Your task to perform on an android device: When is my next appointment? Image 0: 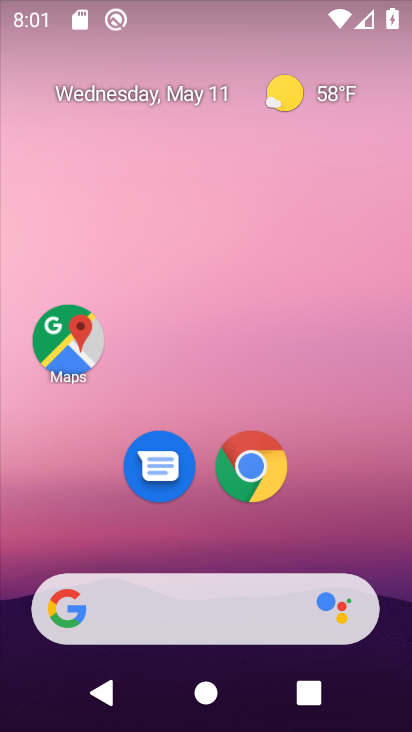
Step 0: drag from (234, 557) to (219, 22)
Your task to perform on an android device: When is my next appointment? Image 1: 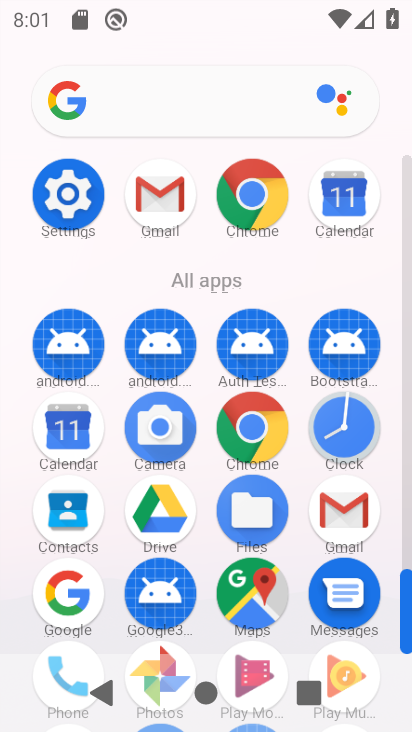
Step 1: click (49, 426)
Your task to perform on an android device: When is my next appointment? Image 2: 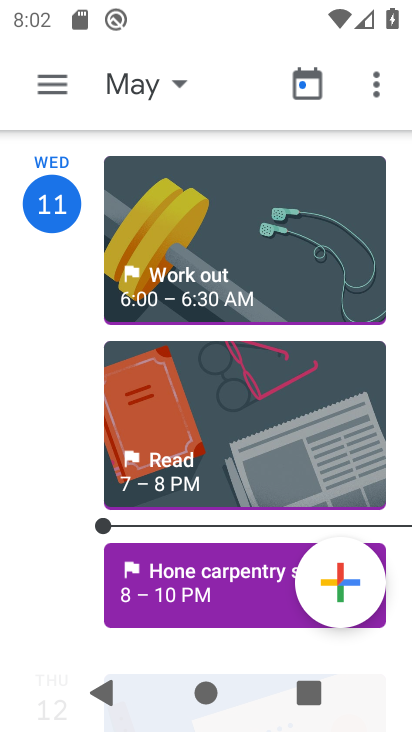
Step 2: click (151, 74)
Your task to perform on an android device: When is my next appointment? Image 3: 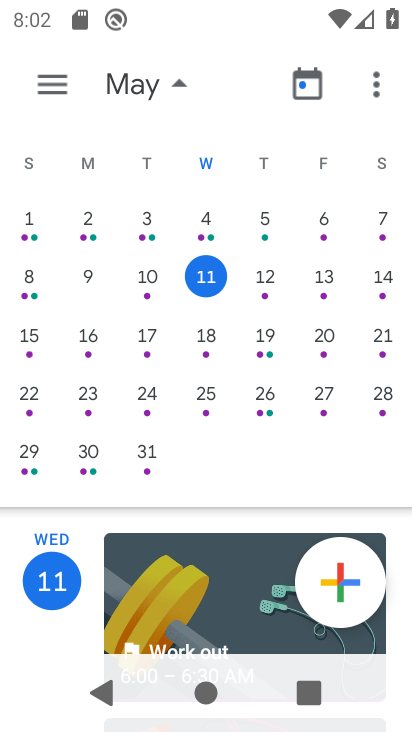
Step 3: click (204, 276)
Your task to perform on an android device: When is my next appointment? Image 4: 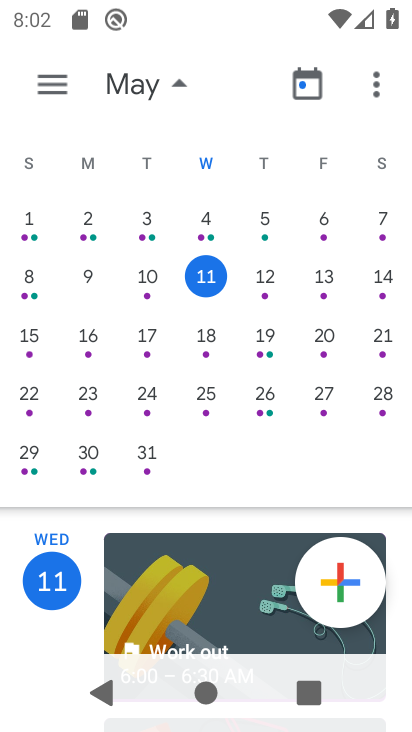
Step 4: task complete